Your task to perform on an android device: add a contact Image 0: 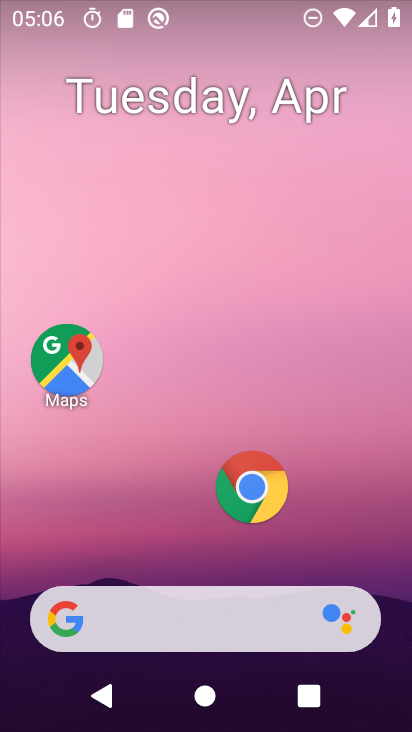
Step 0: drag from (209, 471) to (319, 1)
Your task to perform on an android device: add a contact Image 1: 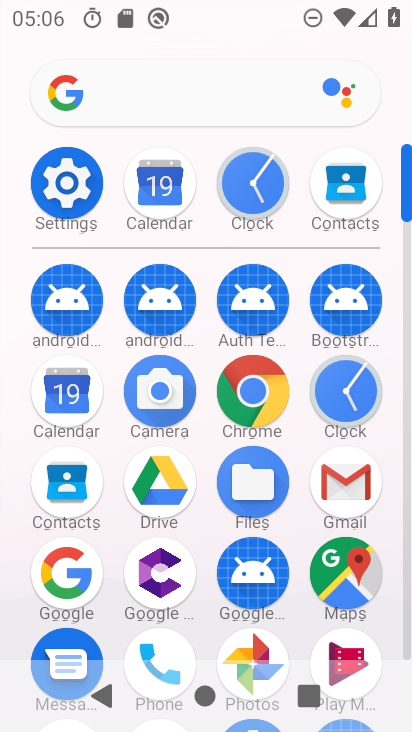
Step 1: click (77, 476)
Your task to perform on an android device: add a contact Image 2: 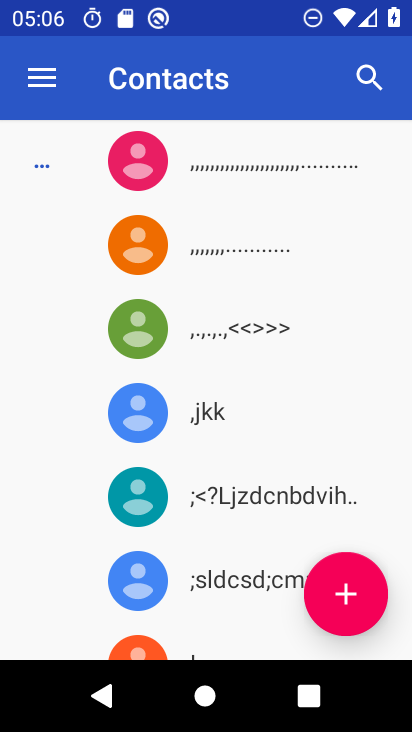
Step 2: click (361, 593)
Your task to perform on an android device: add a contact Image 3: 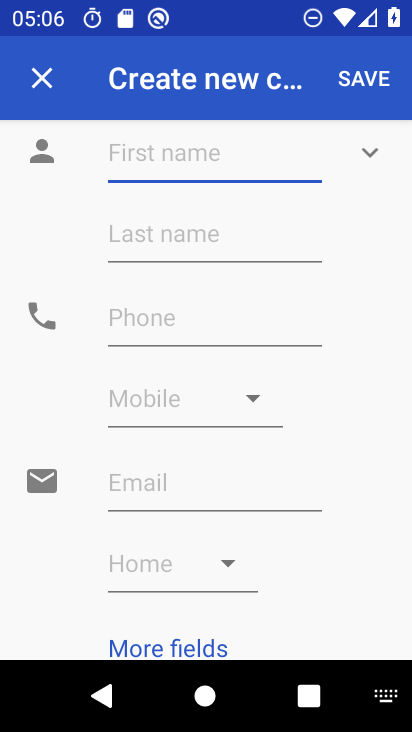
Step 3: click (166, 157)
Your task to perform on an android device: add a contact Image 4: 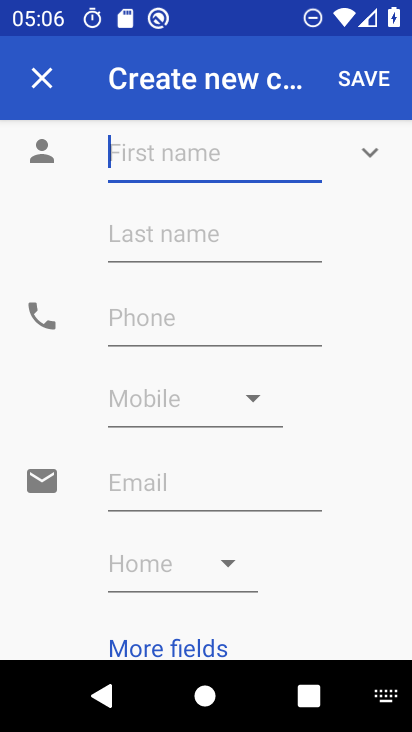
Step 4: type "vvvv"
Your task to perform on an android device: add a contact Image 5: 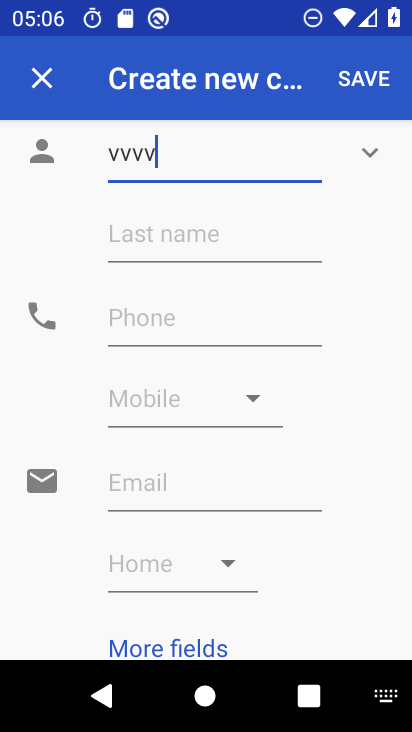
Step 5: click (149, 309)
Your task to perform on an android device: add a contact Image 6: 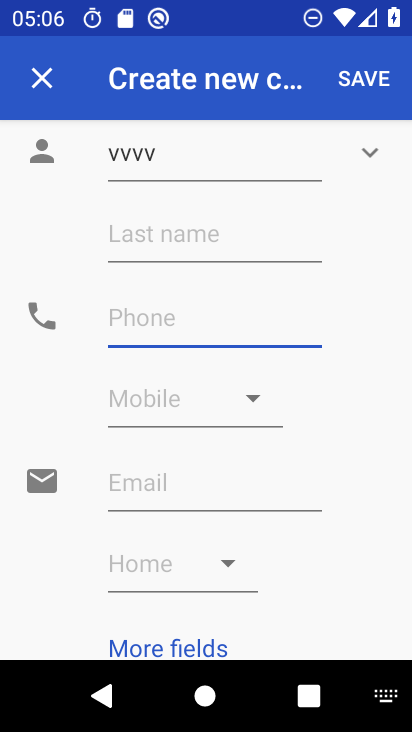
Step 6: type "767676"
Your task to perform on an android device: add a contact Image 7: 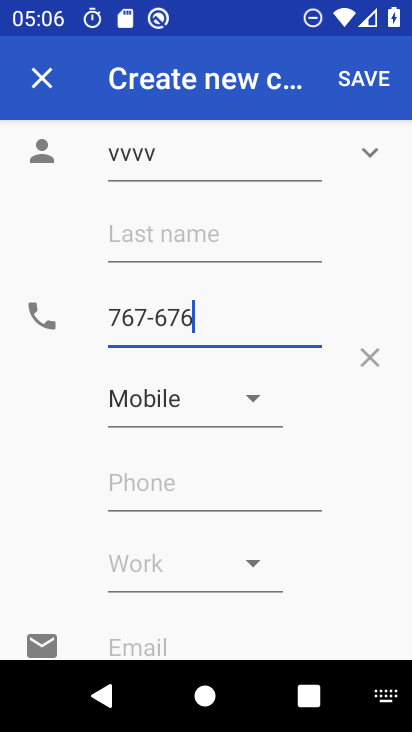
Step 7: click (364, 71)
Your task to perform on an android device: add a contact Image 8: 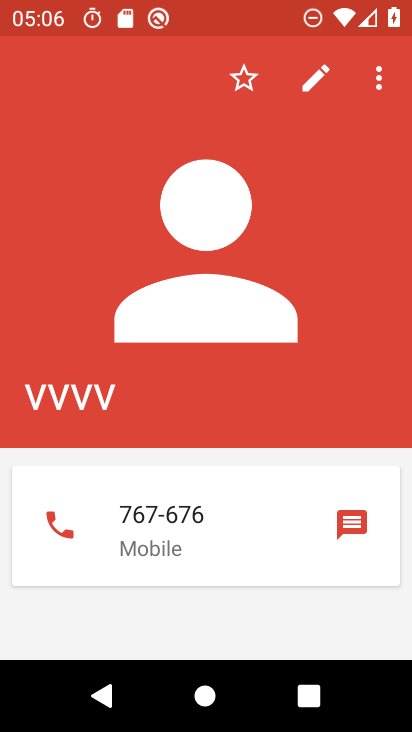
Step 8: task complete